Your task to perform on an android device: choose inbox layout in the gmail app Image 0: 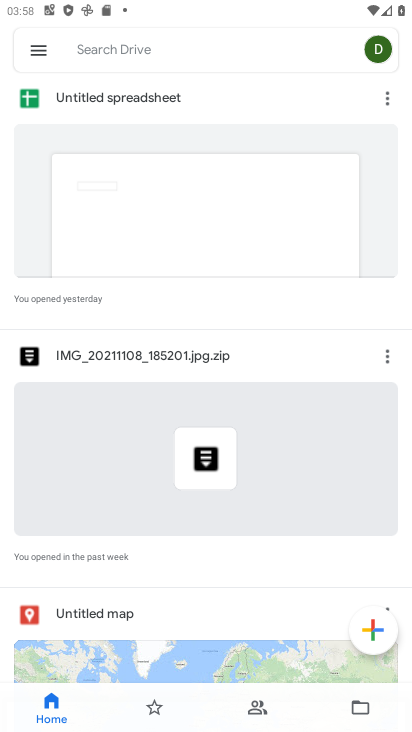
Step 0: press home button
Your task to perform on an android device: choose inbox layout in the gmail app Image 1: 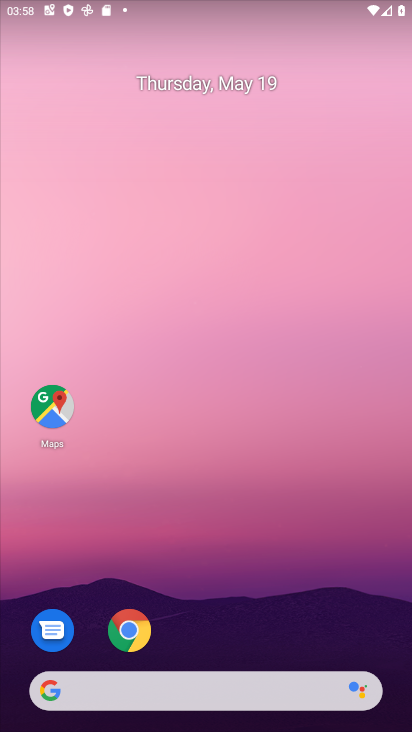
Step 1: drag from (377, 642) to (320, 212)
Your task to perform on an android device: choose inbox layout in the gmail app Image 2: 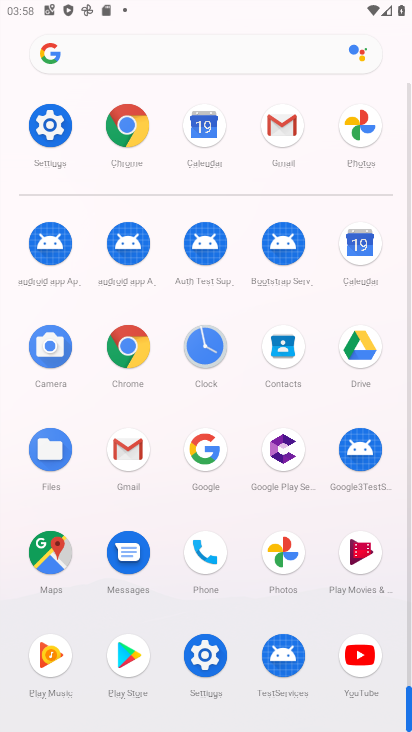
Step 2: click (125, 446)
Your task to perform on an android device: choose inbox layout in the gmail app Image 3: 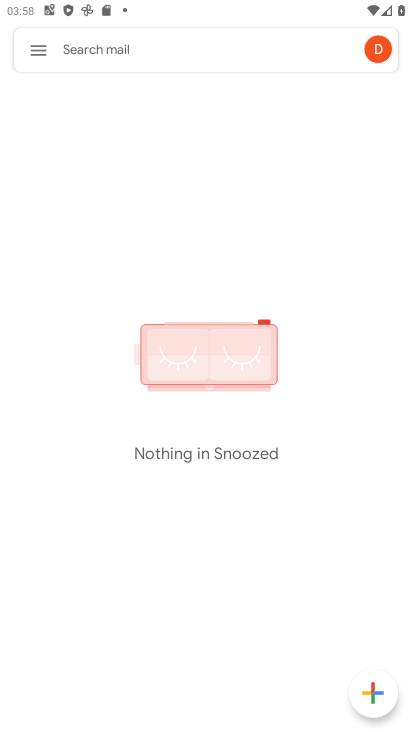
Step 3: click (37, 48)
Your task to perform on an android device: choose inbox layout in the gmail app Image 4: 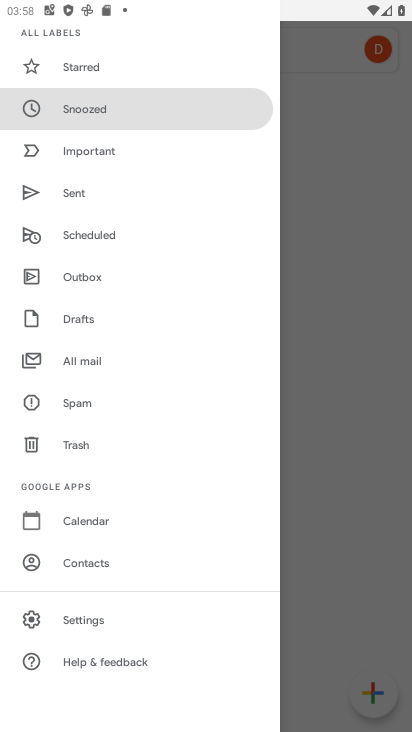
Step 4: click (80, 606)
Your task to perform on an android device: choose inbox layout in the gmail app Image 5: 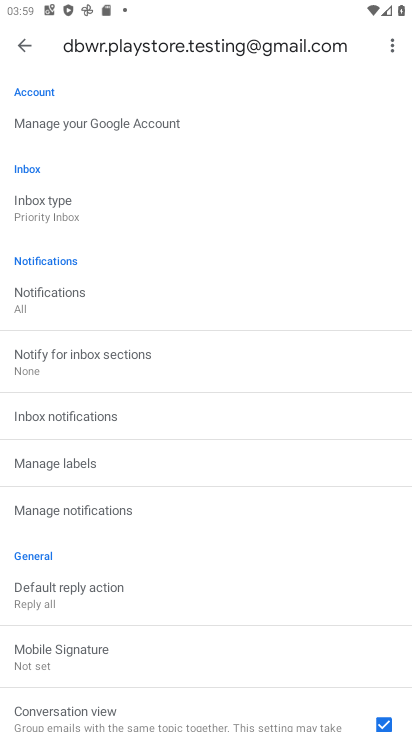
Step 5: click (46, 198)
Your task to perform on an android device: choose inbox layout in the gmail app Image 6: 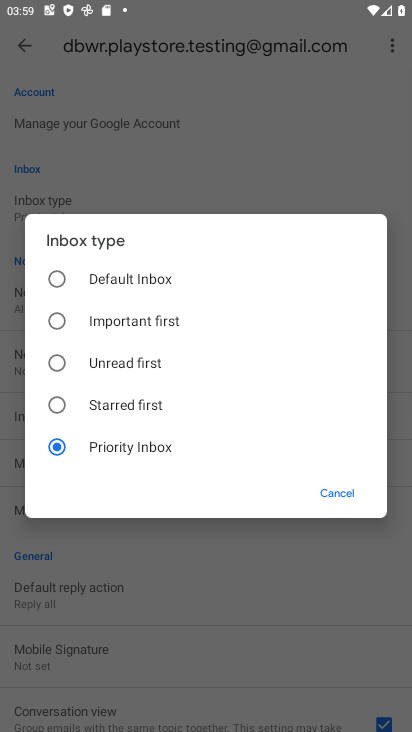
Step 6: click (55, 273)
Your task to perform on an android device: choose inbox layout in the gmail app Image 7: 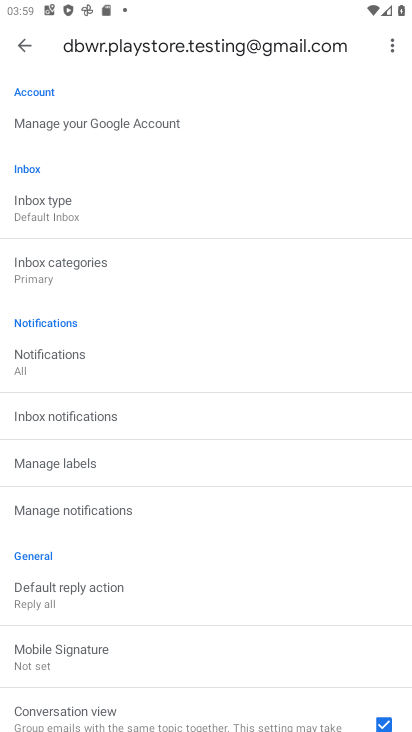
Step 7: task complete